Your task to perform on an android device: toggle improve location accuracy Image 0: 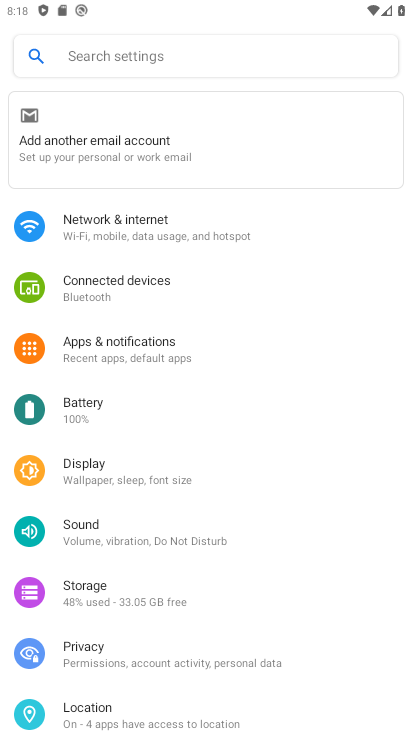
Step 0: press home button
Your task to perform on an android device: toggle improve location accuracy Image 1: 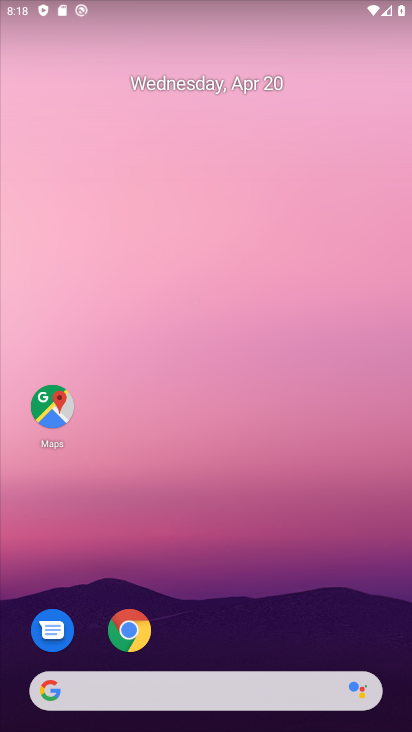
Step 1: drag from (198, 498) to (368, 5)
Your task to perform on an android device: toggle improve location accuracy Image 2: 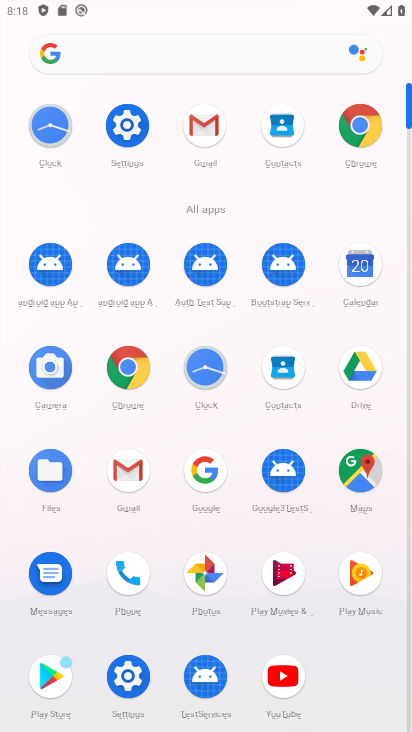
Step 2: click (128, 130)
Your task to perform on an android device: toggle improve location accuracy Image 3: 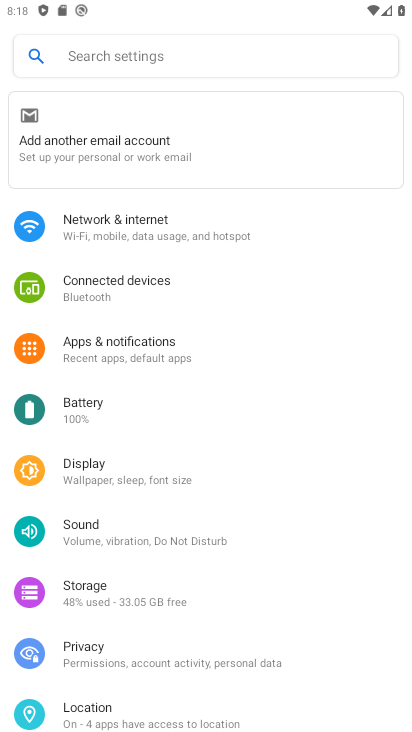
Step 3: drag from (113, 675) to (149, 433)
Your task to perform on an android device: toggle improve location accuracy Image 4: 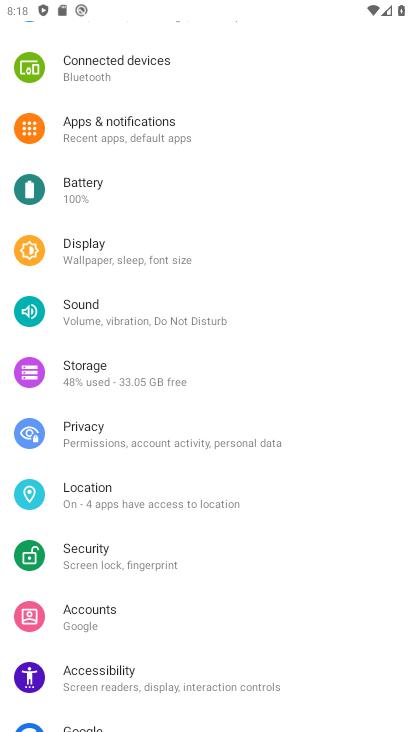
Step 4: click (142, 504)
Your task to perform on an android device: toggle improve location accuracy Image 5: 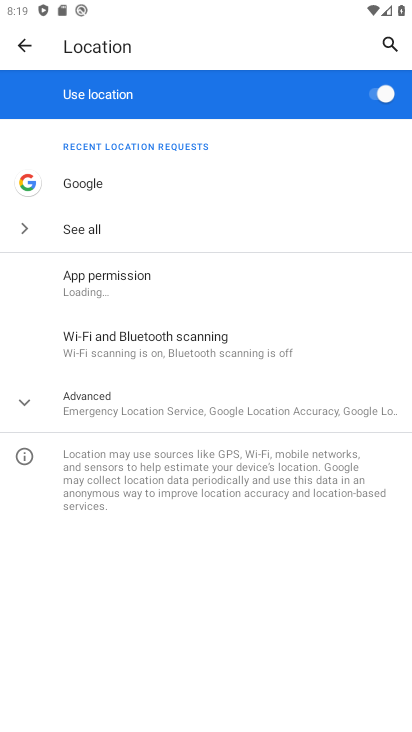
Step 5: click (122, 397)
Your task to perform on an android device: toggle improve location accuracy Image 6: 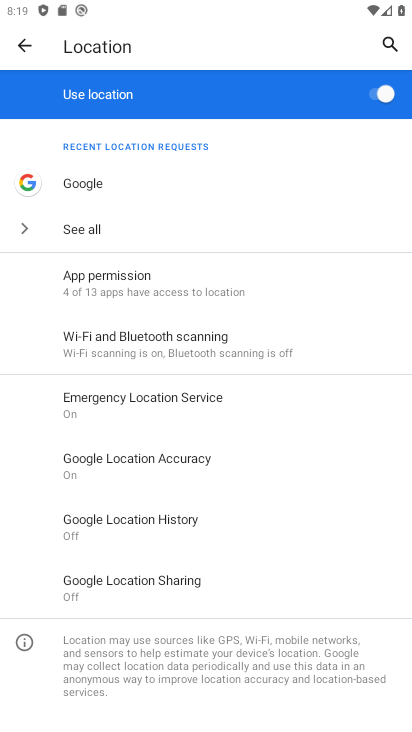
Step 6: click (142, 467)
Your task to perform on an android device: toggle improve location accuracy Image 7: 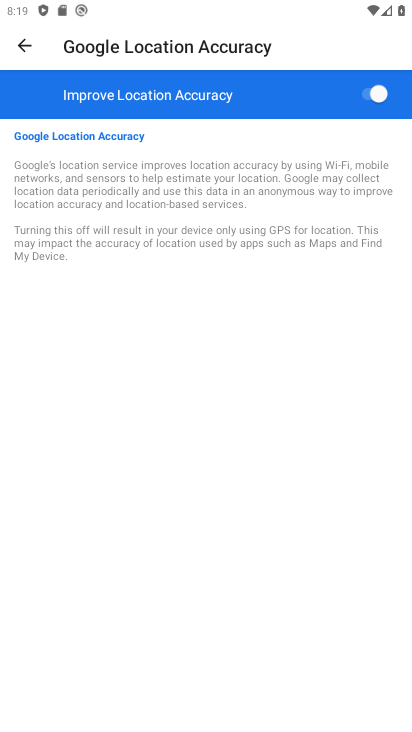
Step 7: click (365, 87)
Your task to perform on an android device: toggle improve location accuracy Image 8: 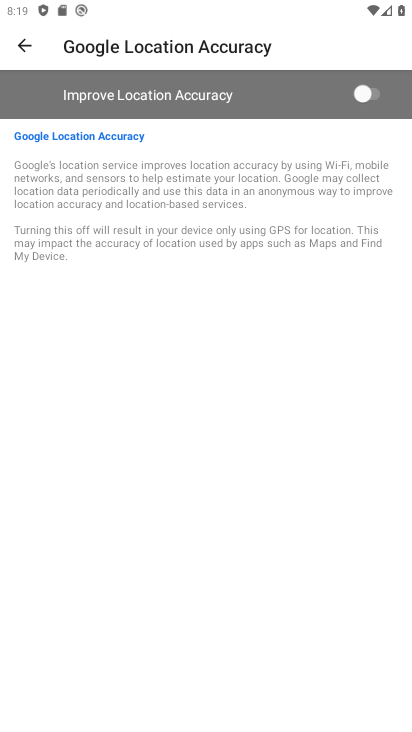
Step 8: task complete